Your task to perform on an android device: turn off data saver in the chrome app Image 0: 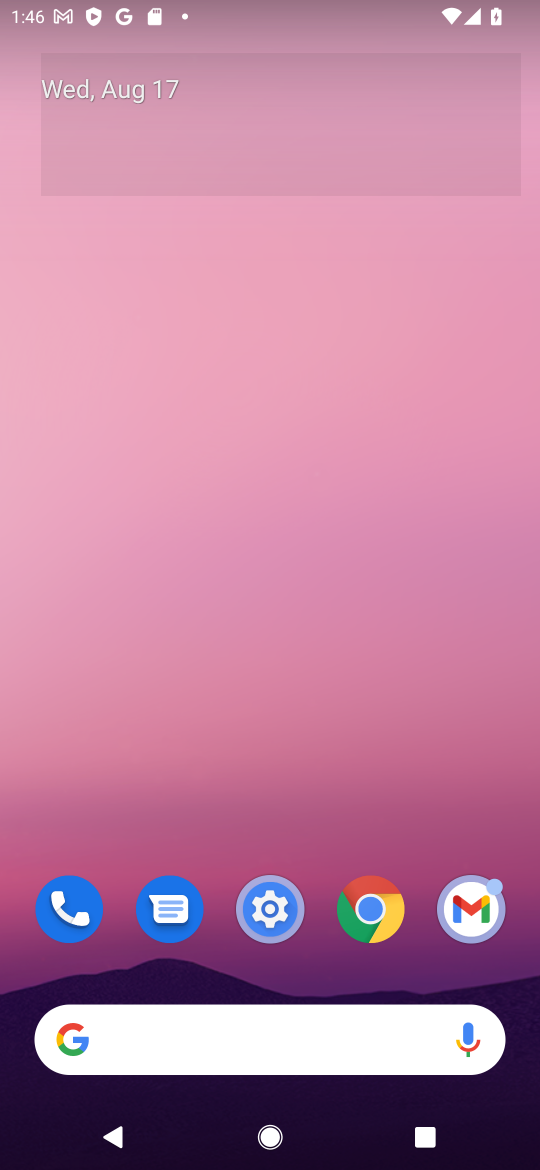
Step 0: drag from (269, 772) to (246, 199)
Your task to perform on an android device: turn off data saver in the chrome app Image 1: 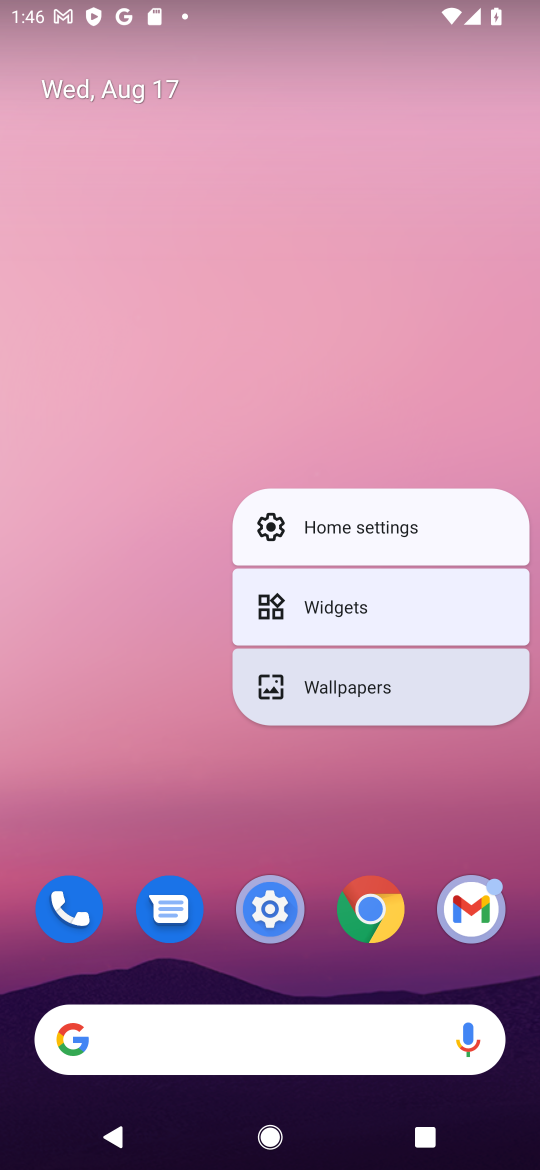
Step 1: click (110, 680)
Your task to perform on an android device: turn off data saver in the chrome app Image 2: 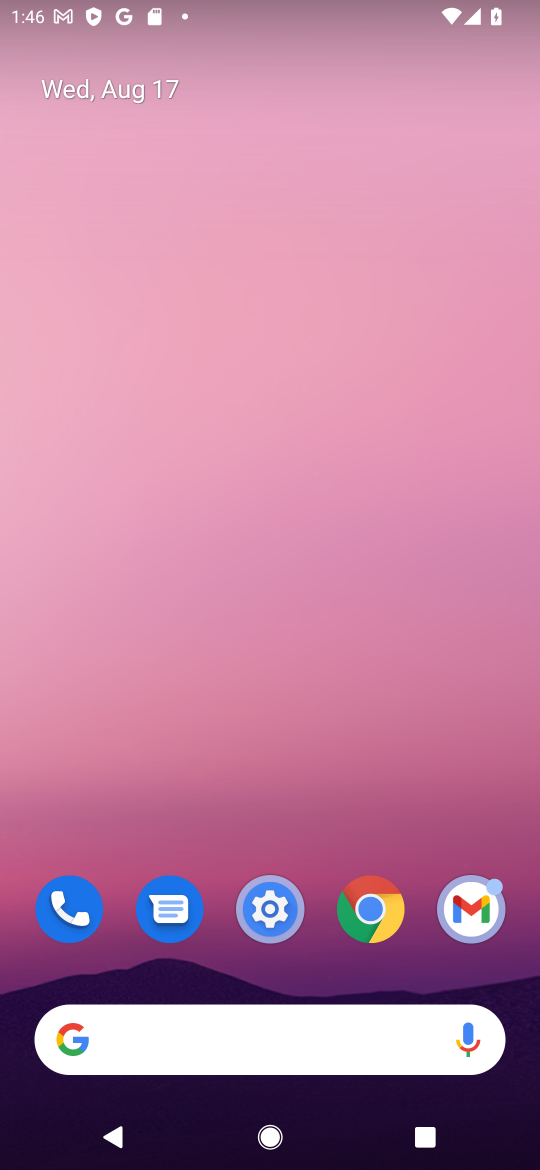
Step 2: drag from (169, 839) to (238, 15)
Your task to perform on an android device: turn off data saver in the chrome app Image 3: 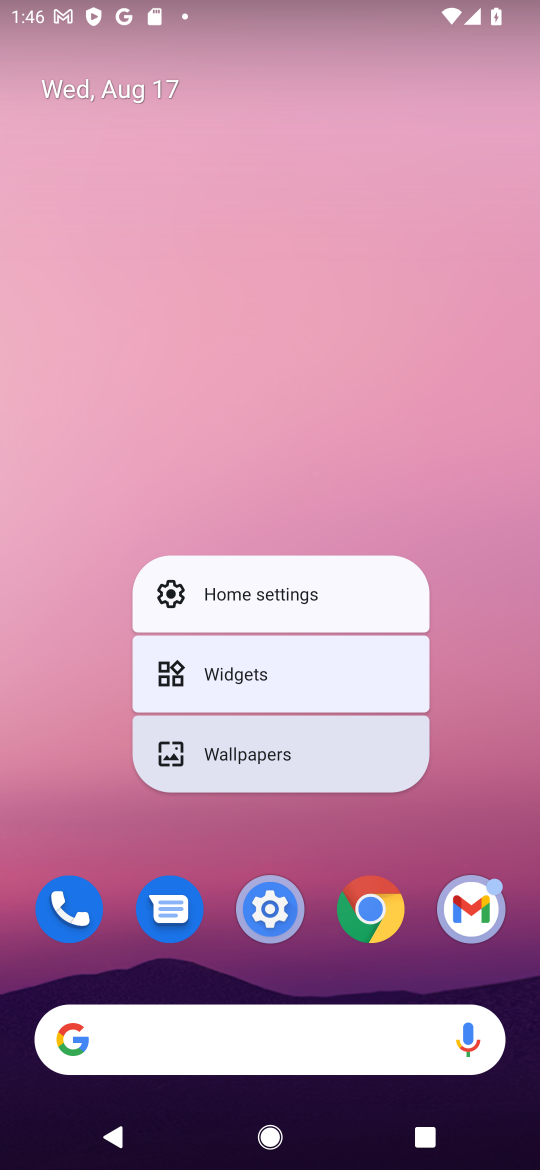
Step 3: click (365, 896)
Your task to perform on an android device: turn off data saver in the chrome app Image 4: 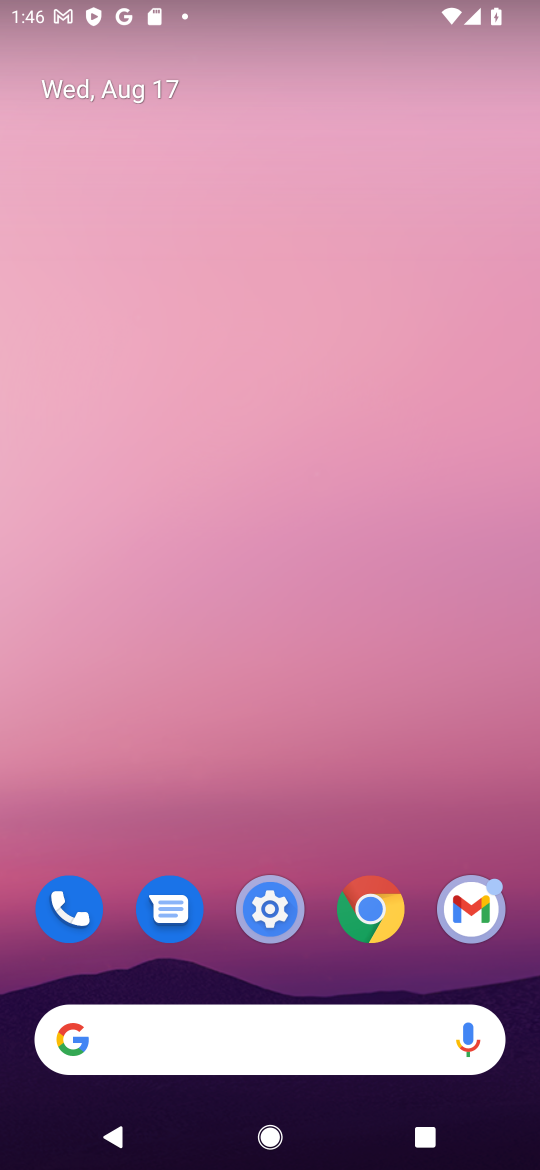
Step 4: click (365, 896)
Your task to perform on an android device: turn off data saver in the chrome app Image 5: 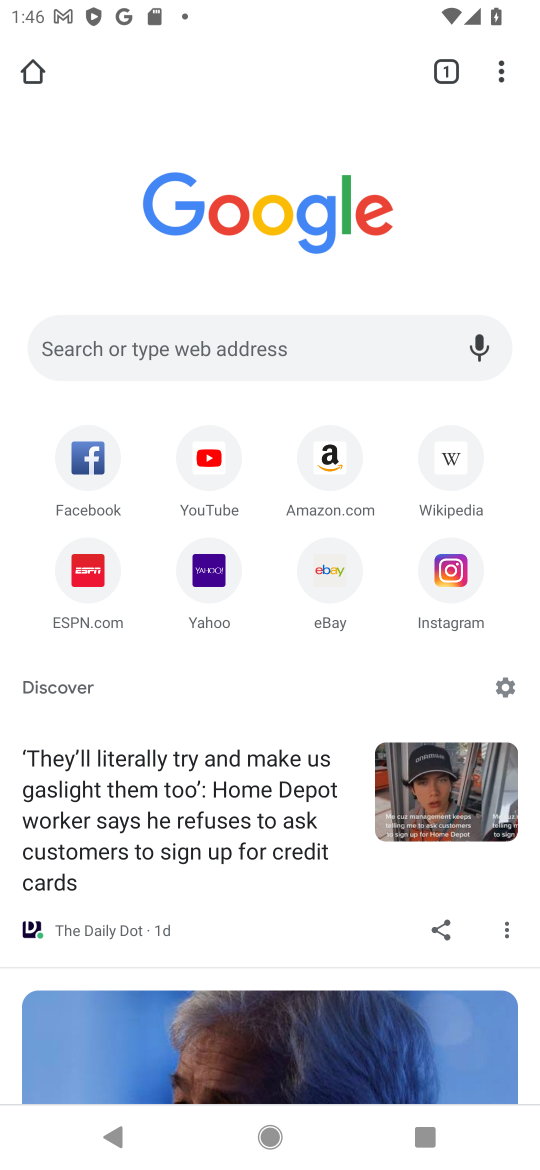
Step 5: task complete